Your task to perform on an android device: Go to Reddit.com Image 0: 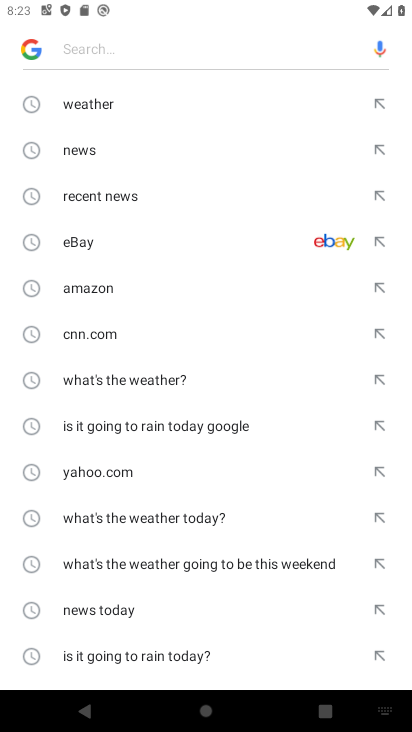
Step 0: click (407, 459)
Your task to perform on an android device: Go to Reddit.com Image 1: 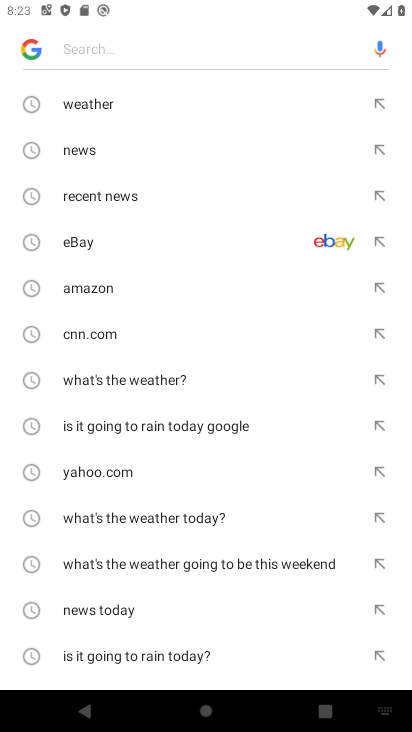
Step 1: press back button
Your task to perform on an android device: Go to Reddit.com Image 2: 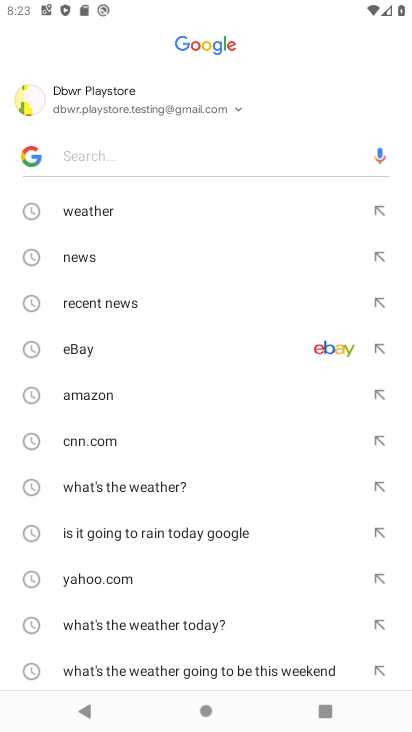
Step 2: press back button
Your task to perform on an android device: Go to Reddit.com Image 3: 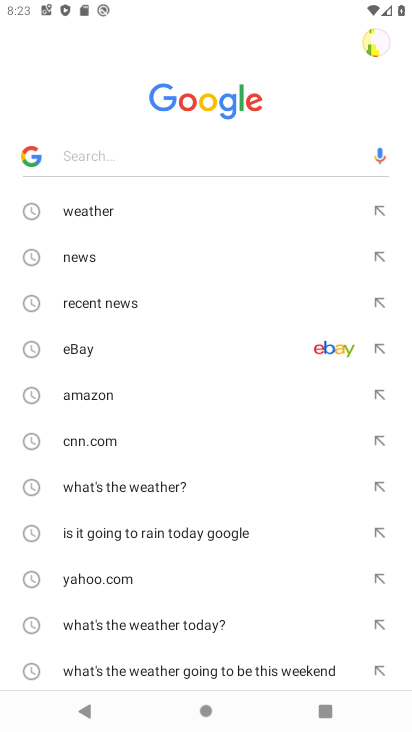
Step 3: press back button
Your task to perform on an android device: Go to Reddit.com Image 4: 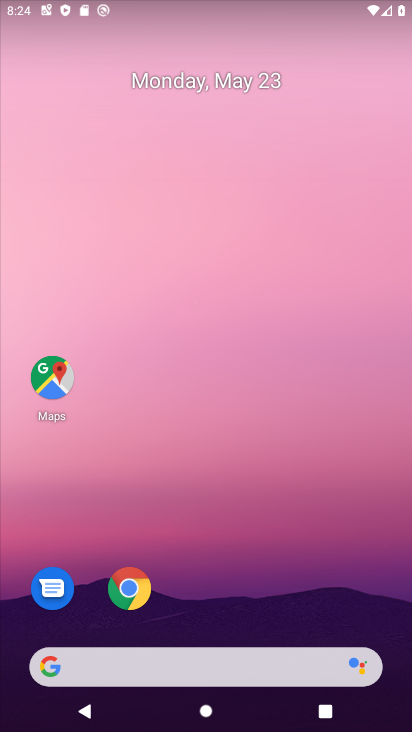
Step 4: click (137, 592)
Your task to perform on an android device: Go to Reddit.com Image 5: 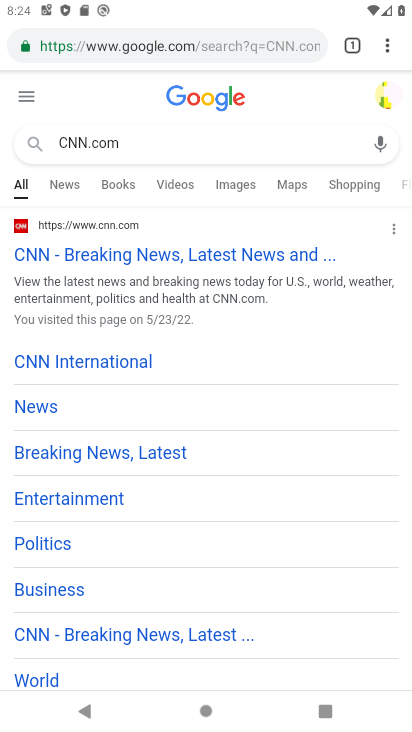
Step 5: click (320, 42)
Your task to perform on an android device: Go to Reddit.com Image 6: 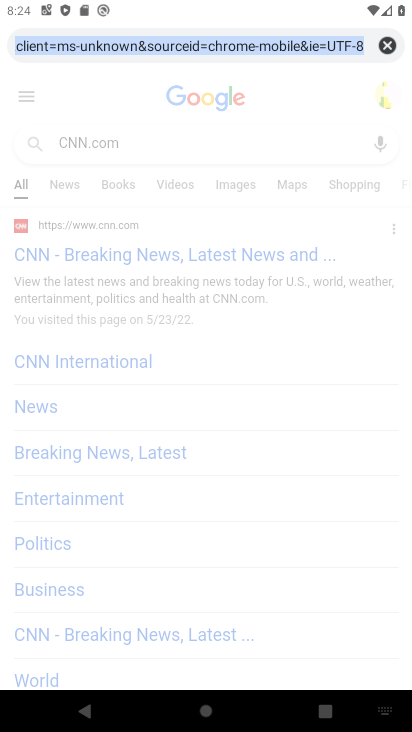
Step 6: click (385, 43)
Your task to perform on an android device: Go to Reddit.com Image 7: 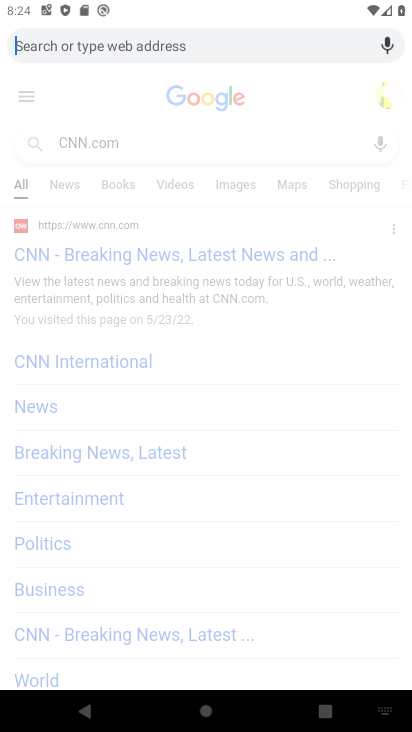
Step 7: type "Reddit.com"
Your task to perform on an android device: Go to Reddit.com Image 8: 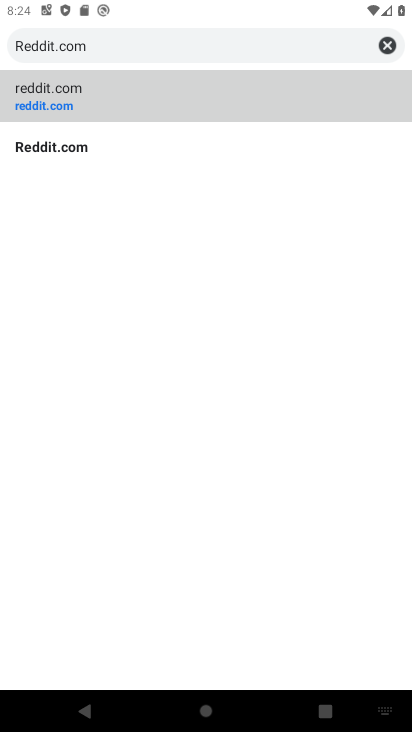
Step 8: click (57, 152)
Your task to perform on an android device: Go to Reddit.com Image 9: 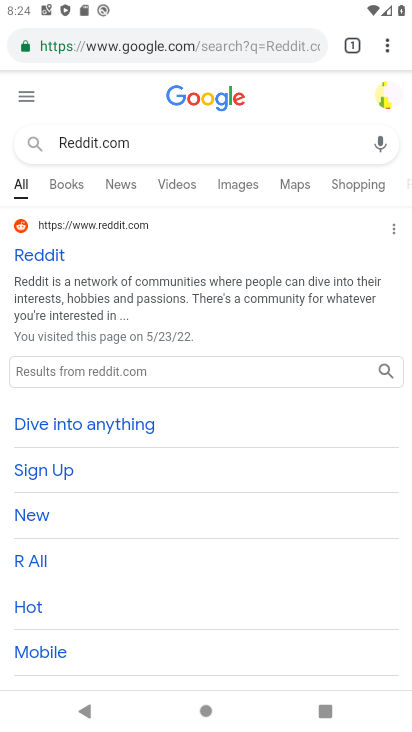
Step 9: task complete